Your task to perform on an android device: toggle sleep mode Image 0: 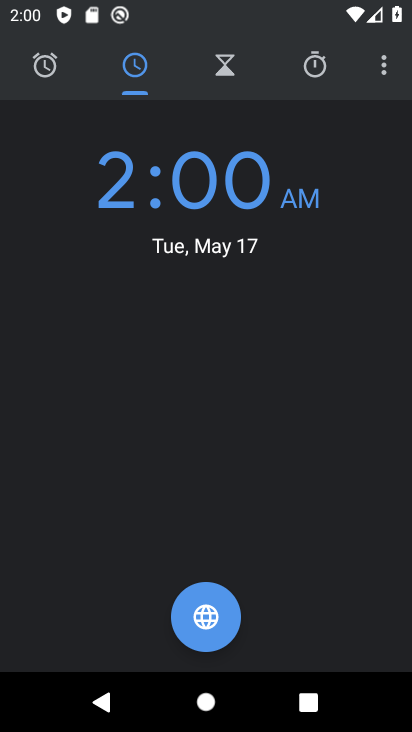
Step 0: press home button
Your task to perform on an android device: toggle sleep mode Image 1: 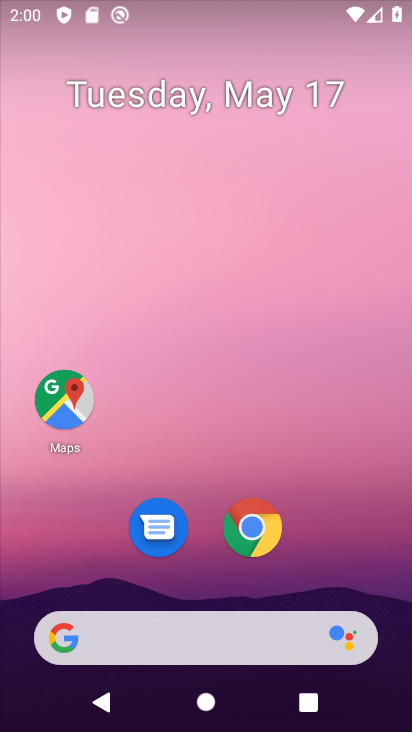
Step 1: drag from (72, 579) to (215, 141)
Your task to perform on an android device: toggle sleep mode Image 2: 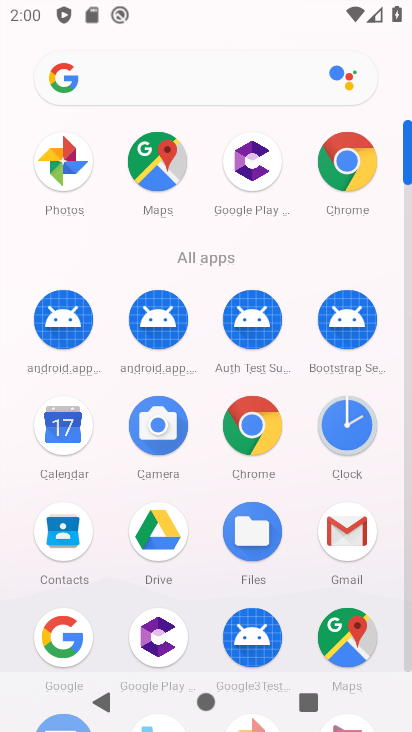
Step 2: drag from (164, 652) to (222, 415)
Your task to perform on an android device: toggle sleep mode Image 3: 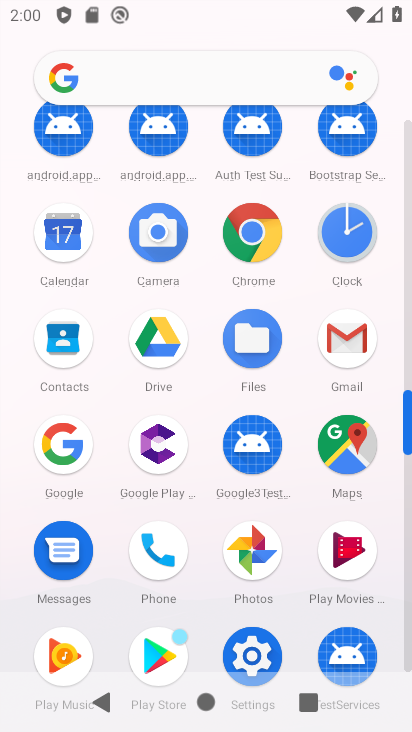
Step 3: click (248, 657)
Your task to perform on an android device: toggle sleep mode Image 4: 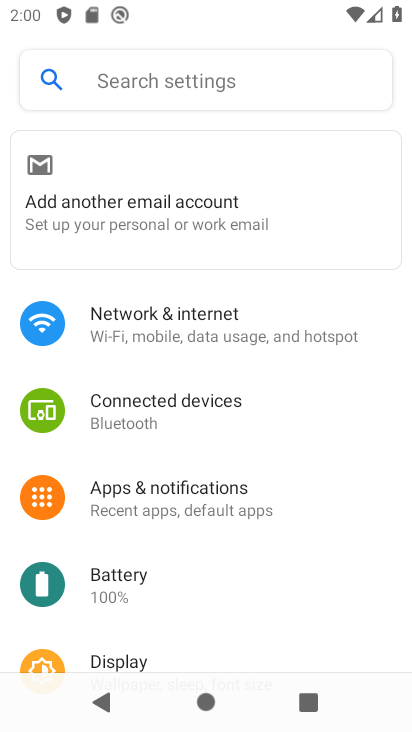
Step 4: drag from (172, 541) to (306, 270)
Your task to perform on an android device: toggle sleep mode Image 5: 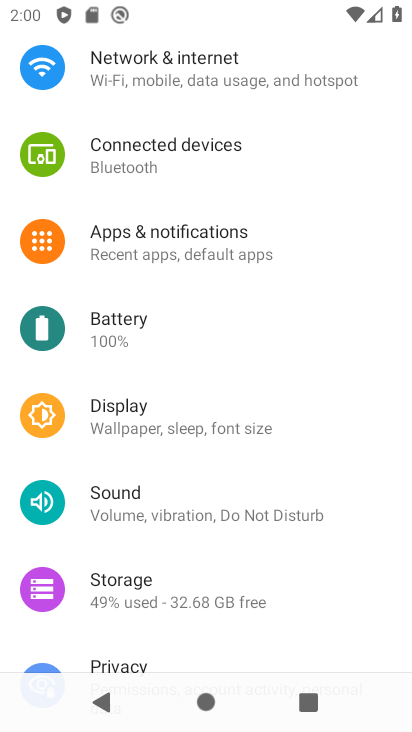
Step 5: click (155, 418)
Your task to perform on an android device: toggle sleep mode Image 6: 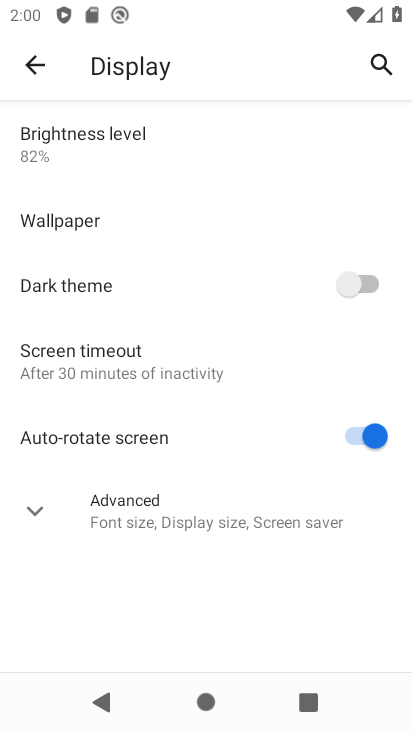
Step 6: click (140, 518)
Your task to perform on an android device: toggle sleep mode Image 7: 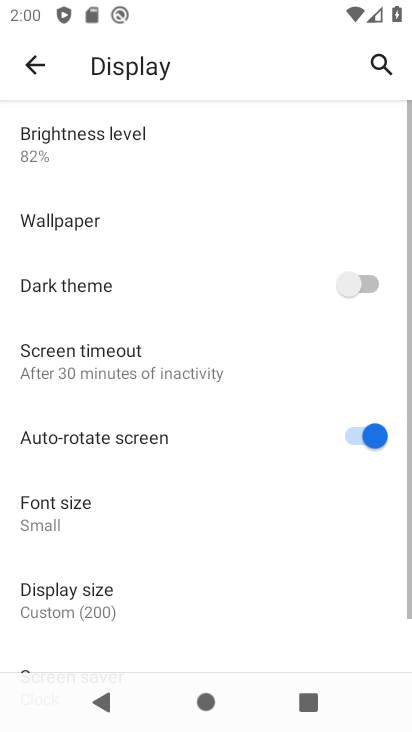
Step 7: task complete